Your task to perform on an android device: Go to Reddit.com Image 0: 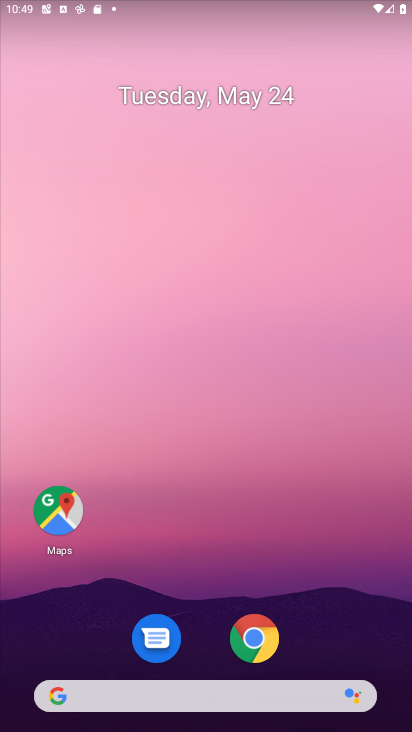
Step 0: click (195, 700)
Your task to perform on an android device: Go to Reddit.com Image 1: 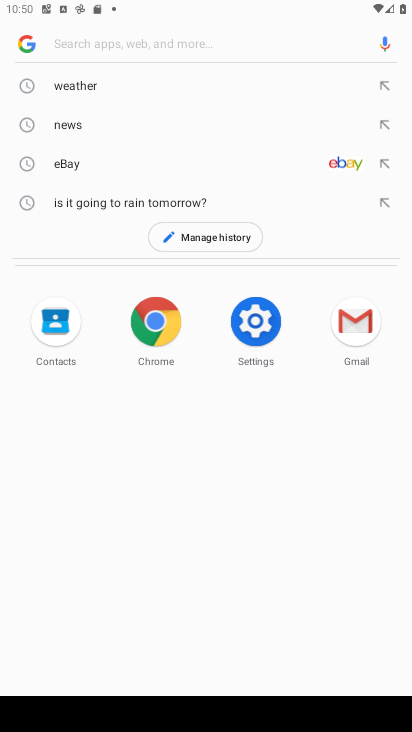
Step 1: type "reddit.com"
Your task to perform on an android device: Go to Reddit.com Image 2: 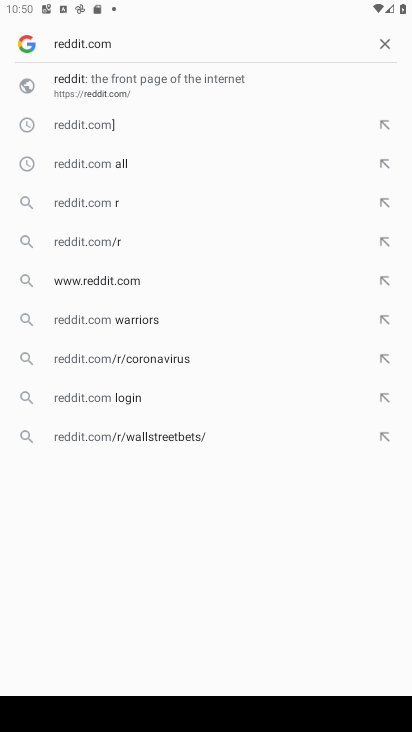
Step 2: click (113, 92)
Your task to perform on an android device: Go to Reddit.com Image 3: 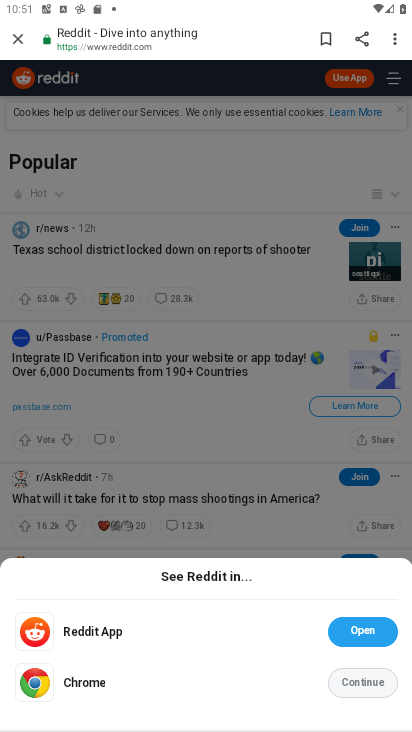
Step 3: task complete